Your task to perform on an android device: Go to sound settings Image 0: 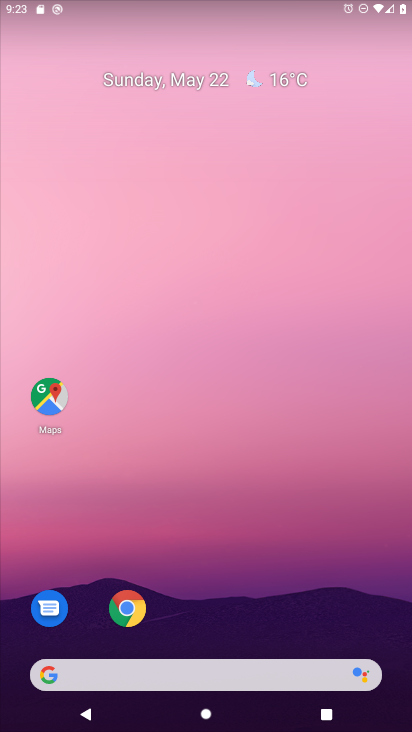
Step 0: drag from (225, 728) to (230, 43)
Your task to perform on an android device: Go to sound settings Image 1: 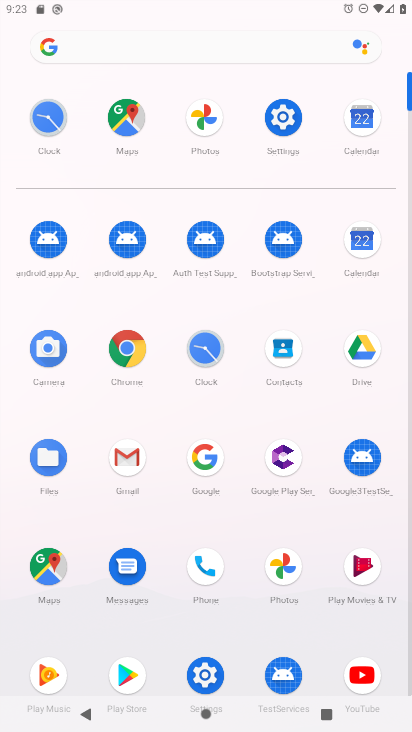
Step 1: click (279, 106)
Your task to perform on an android device: Go to sound settings Image 2: 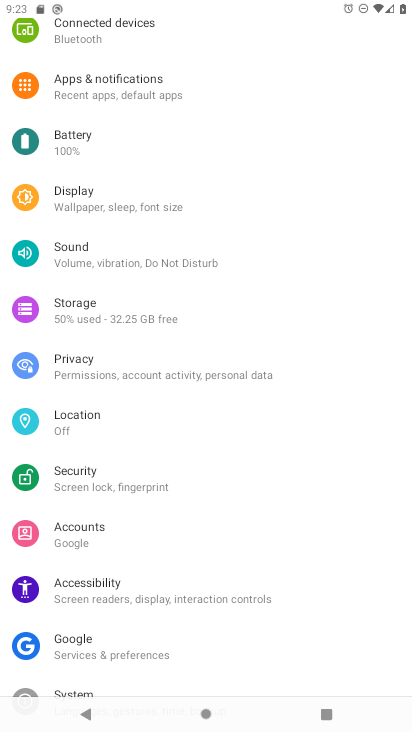
Step 2: click (82, 252)
Your task to perform on an android device: Go to sound settings Image 3: 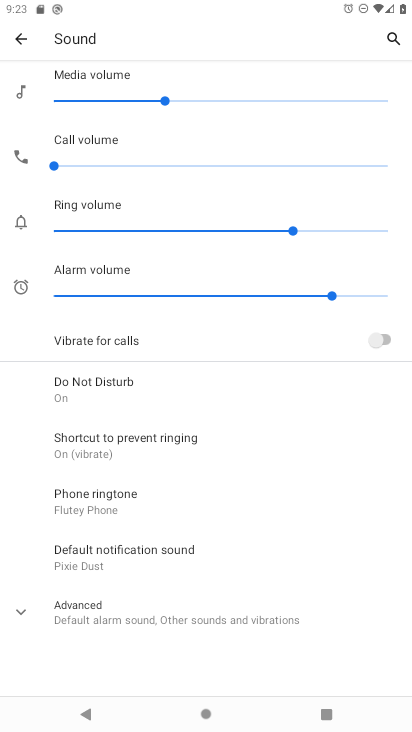
Step 3: task complete